Your task to perform on an android device: turn off priority inbox in the gmail app Image 0: 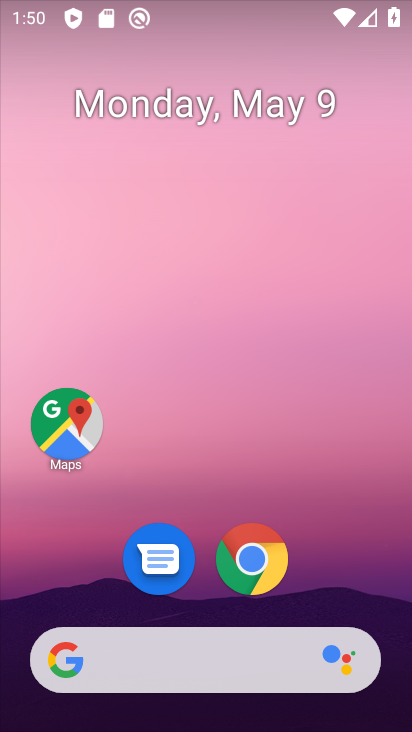
Step 0: drag from (366, 590) to (362, 179)
Your task to perform on an android device: turn off priority inbox in the gmail app Image 1: 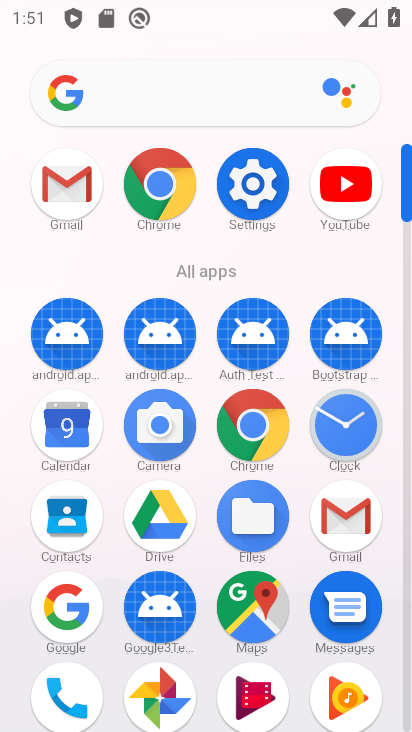
Step 1: click (340, 521)
Your task to perform on an android device: turn off priority inbox in the gmail app Image 2: 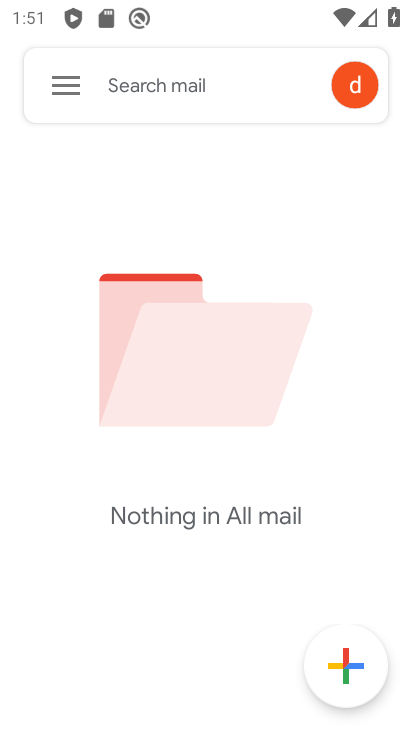
Step 2: click (80, 83)
Your task to perform on an android device: turn off priority inbox in the gmail app Image 3: 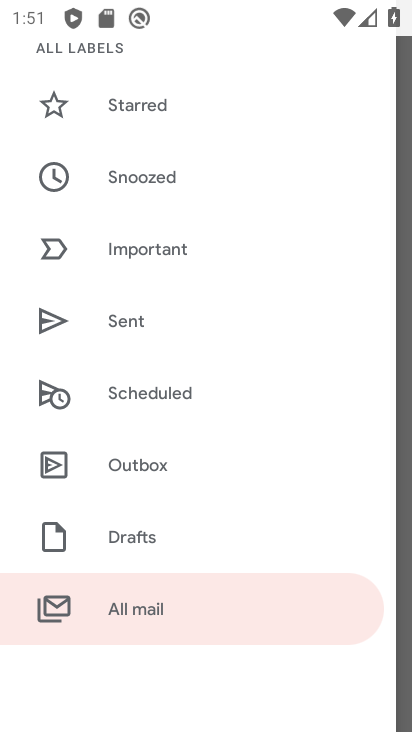
Step 3: drag from (205, 630) to (298, 188)
Your task to perform on an android device: turn off priority inbox in the gmail app Image 4: 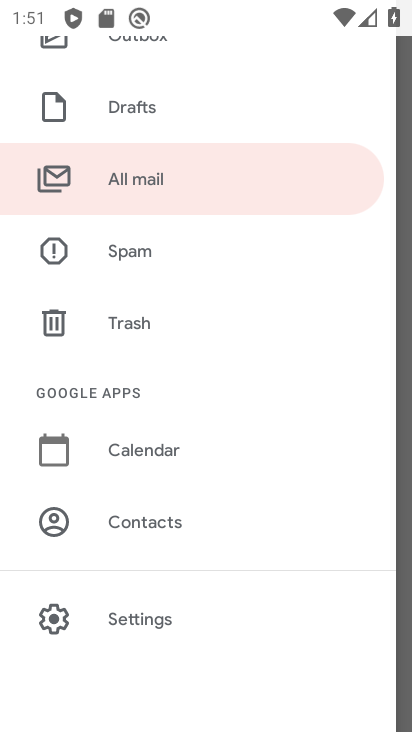
Step 4: drag from (217, 597) to (266, 315)
Your task to perform on an android device: turn off priority inbox in the gmail app Image 5: 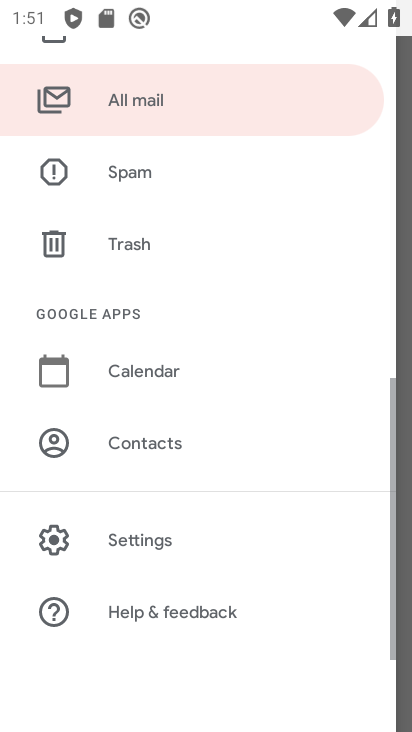
Step 5: click (189, 536)
Your task to perform on an android device: turn off priority inbox in the gmail app Image 6: 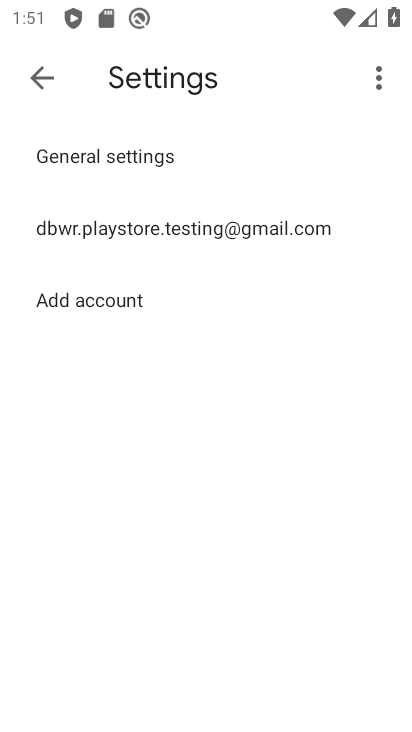
Step 6: click (102, 218)
Your task to perform on an android device: turn off priority inbox in the gmail app Image 7: 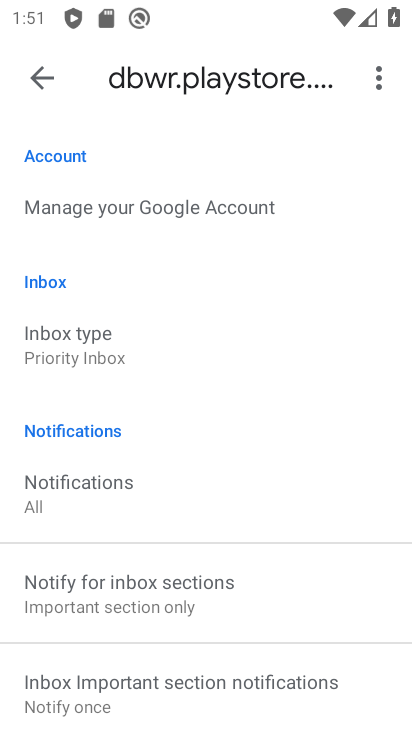
Step 7: click (70, 341)
Your task to perform on an android device: turn off priority inbox in the gmail app Image 8: 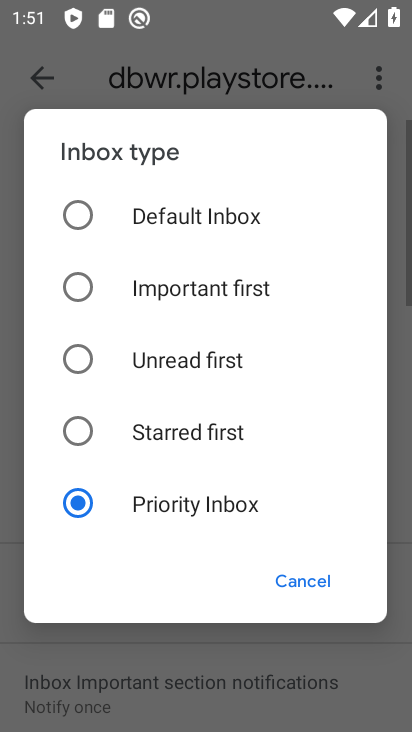
Step 8: click (162, 209)
Your task to perform on an android device: turn off priority inbox in the gmail app Image 9: 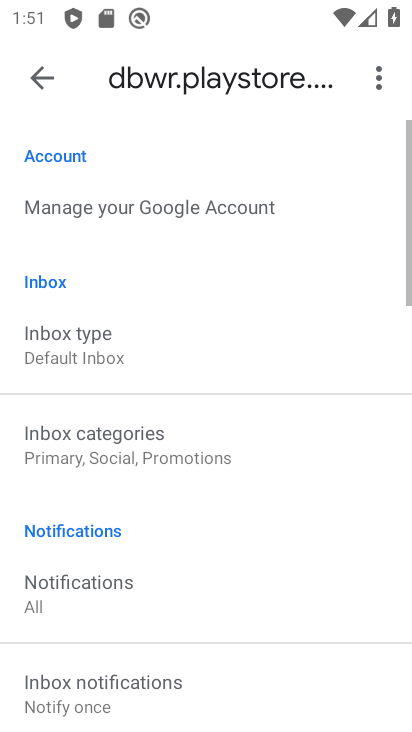
Step 9: task complete